Your task to perform on an android device: Search for pizza restaurants on Maps Image 0: 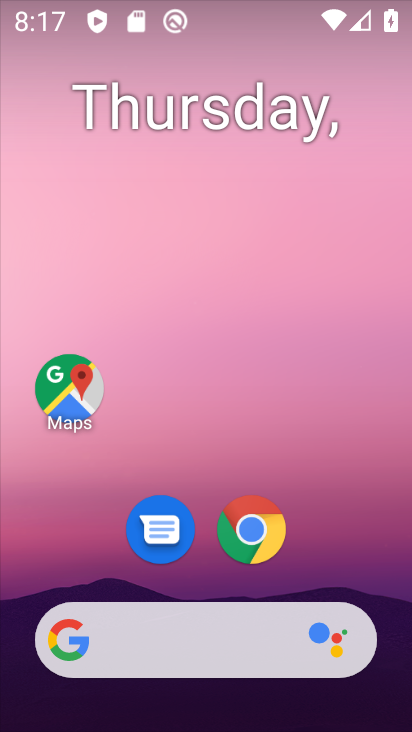
Step 0: press home button
Your task to perform on an android device: Search for pizza restaurants on Maps Image 1: 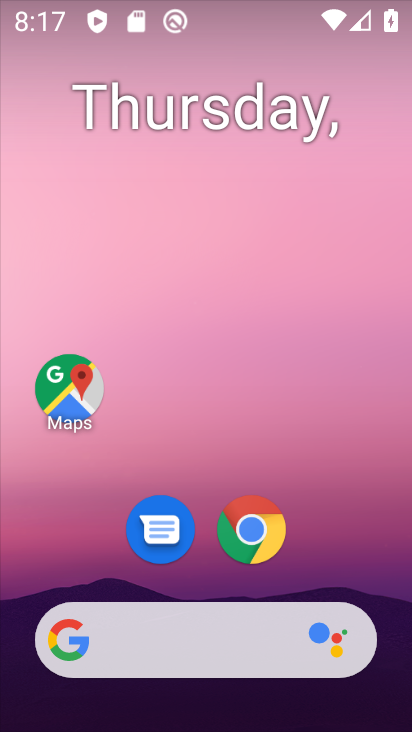
Step 1: click (70, 363)
Your task to perform on an android device: Search for pizza restaurants on Maps Image 2: 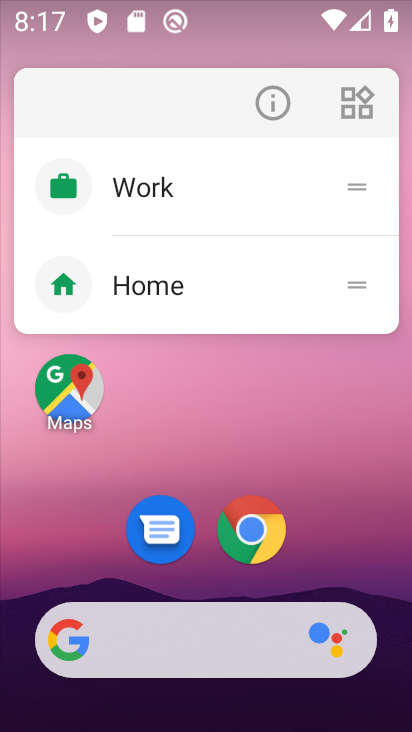
Step 2: click (73, 403)
Your task to perform on an android device: Search for pizza restaurants on Maps Image 3: 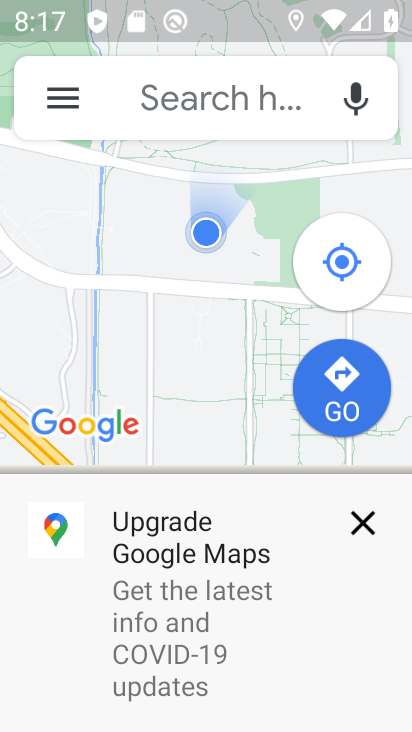
Step 3: click (191, 93)
Your task to perform on an android device: Search for pizza restaurants on Maps Image 4: 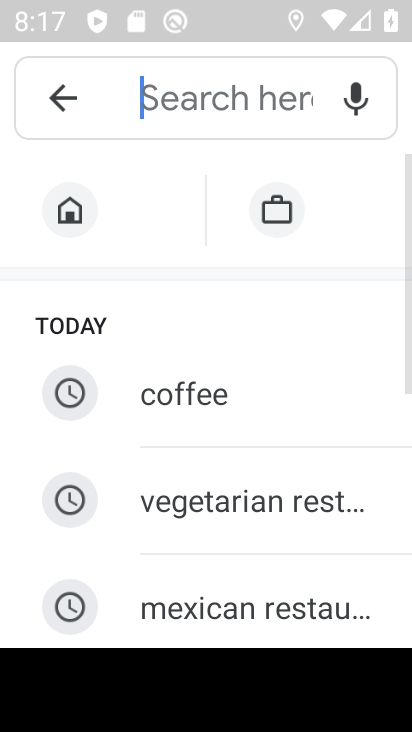
Step 4: drag from (230, 550) to (324, 296)
Your task to perform on an android device: Search for pizza restaurants on Maps Image 5: 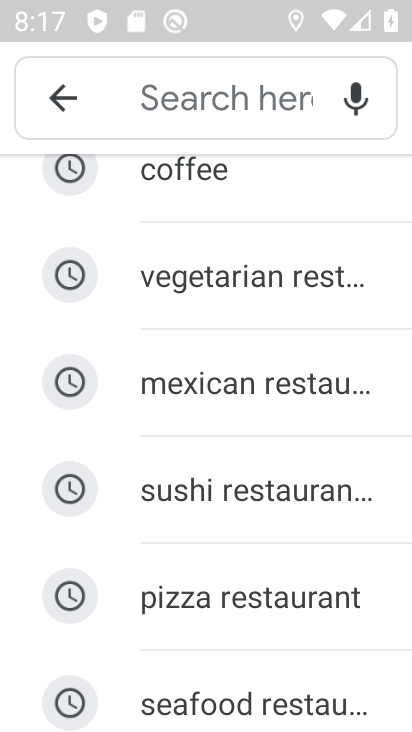
Step 5: click (221, 594)
Your task to perform on an android device: Search for pizza restaurants on Maps Image 6: 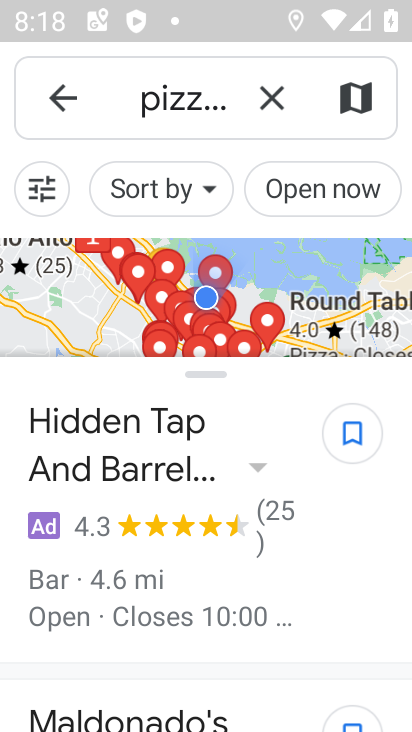
Step 6: task complete